Your task to perform on an android device: Go to privacy settings Image 0: 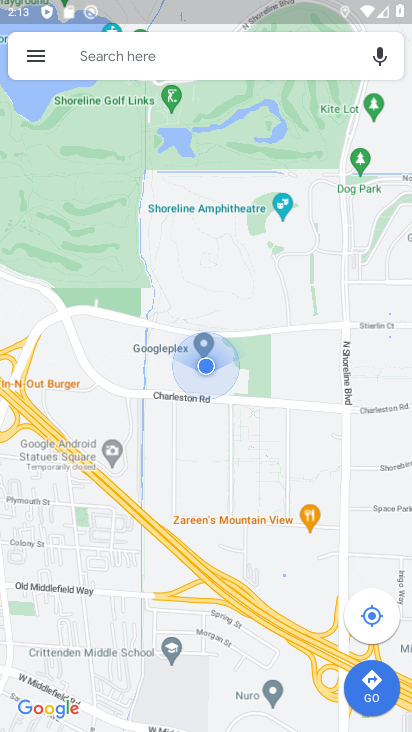
Step 0: press back button
Your task to perform on an android device: Go to privacy settings Image 1: 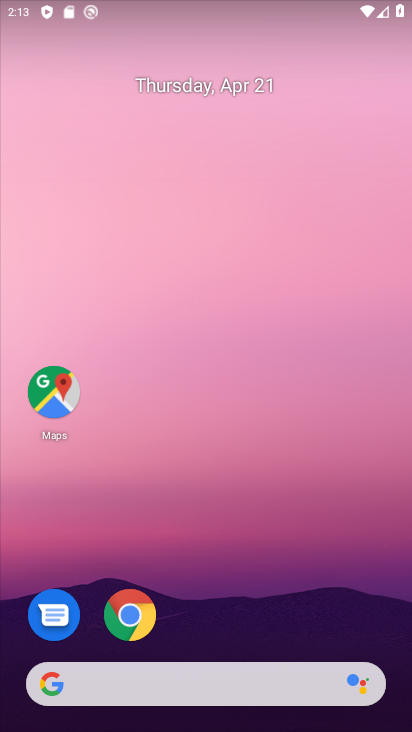
Step 1: drag from (258, 506) to (302, 30)
Your task to perform on an android device: Go to privacy settings Image 2: 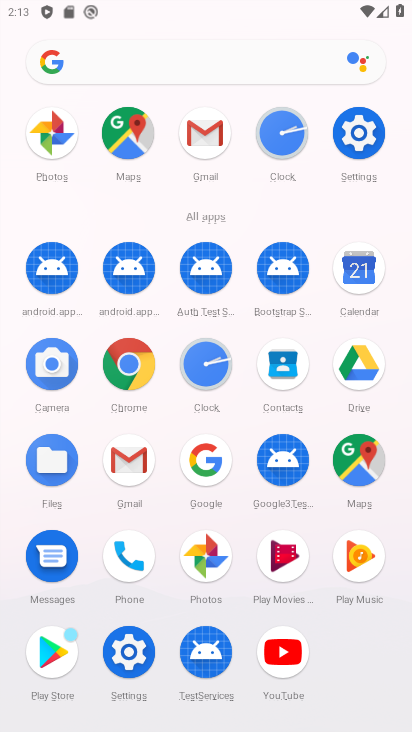
Step 2: click (356, 130)
Your task to perform on an android device: Go to privacy settings Image 3: 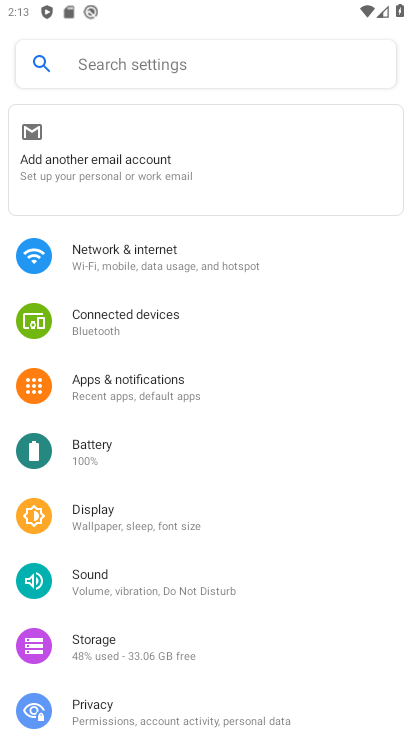
Step 3: click (112, 710)
Your task to perform on an android device: Go to privacy settings Image 4: 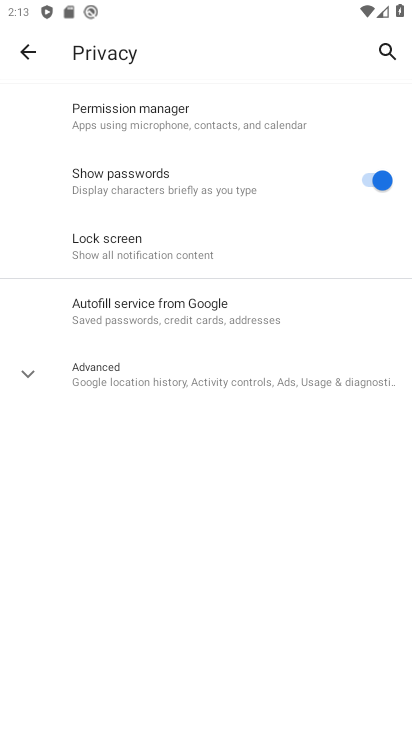
Step 4: task complete